Your task to perform on an android device: Open Yahoo.com Image 0: 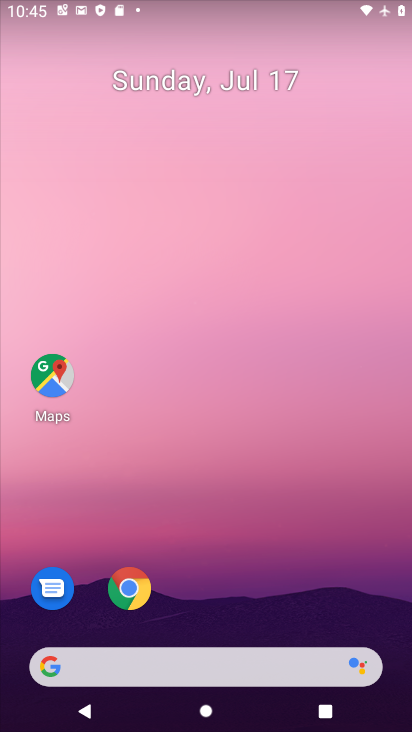
Step 0: press home button
Your task to perform on an android device: Open Yahoo.com Image 1: 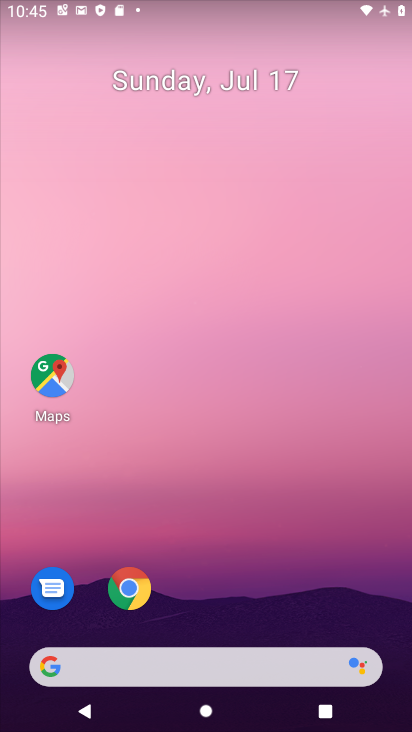
Step 1: drag from (264, 93) to (321, 696)
Your task to perform on an android device: Open Yahoo.com Image 2: 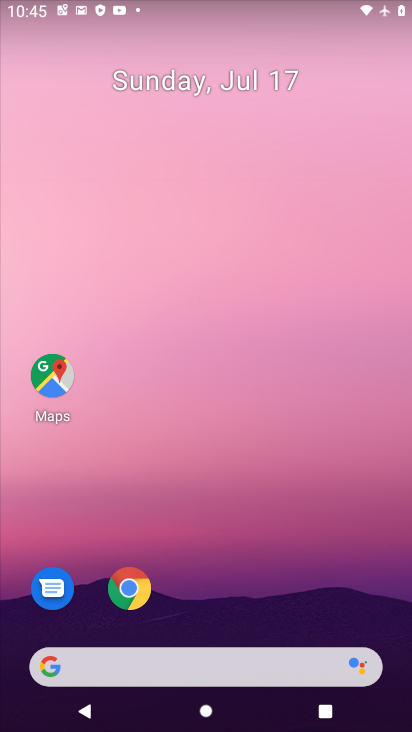
Step 2: drag from (380, 5) to (319, 7)
Your task to perform on an android device: Open Yahoo.com Image 3: 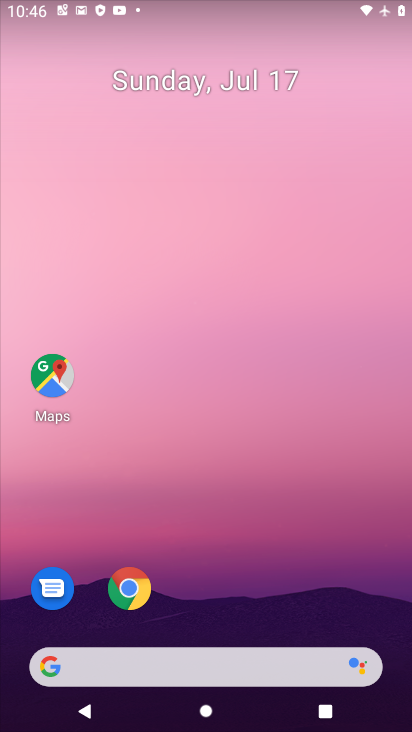
Step 3: drag from (307, 582) to (295, 249)
Your task to perform on an android device: Open Yahoo.com Image 4: 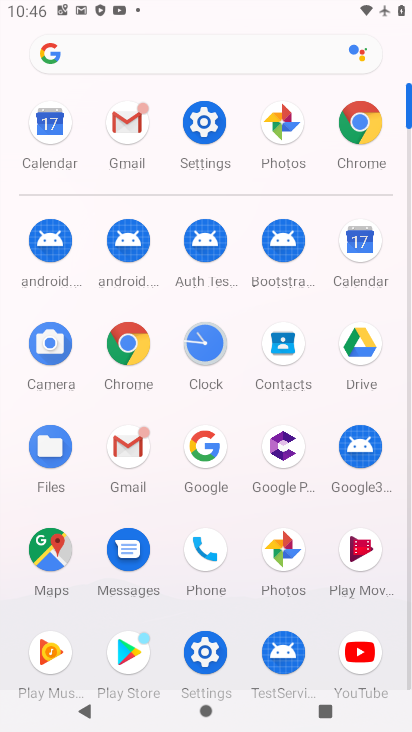
Step 4: click (134, 347)
Your task to perform on an android device: Open Yahoo.com Image 5: 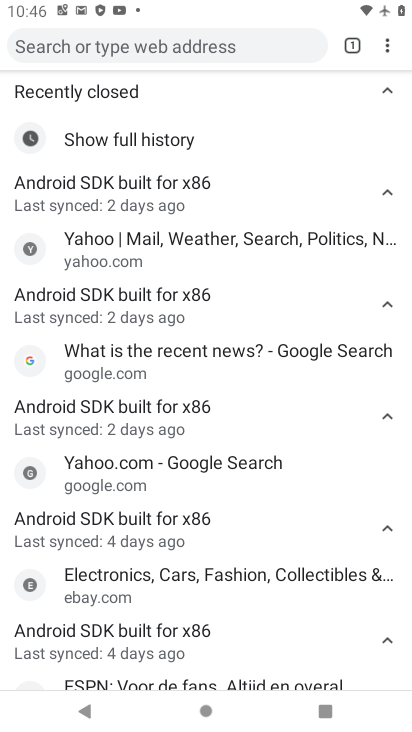
Step 5: click (177, 59)
Your task to perform on an android device: Open Yahoo.com Image 6: 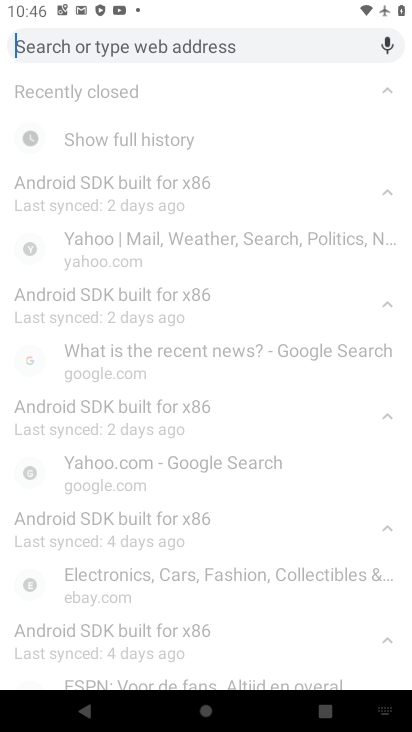
Step 6: type "Yahoo.com"
Your task to perform on an android device: Open Yahoo.com Image 7: 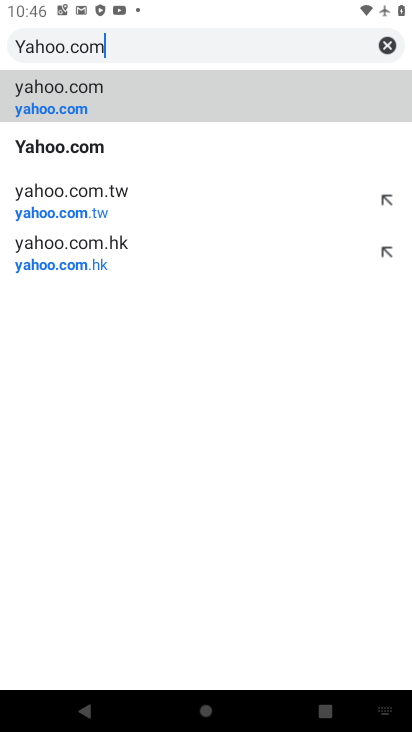
Step 7: type ""
Your task to perform on an android device: Open Yahoo.com Image 8: 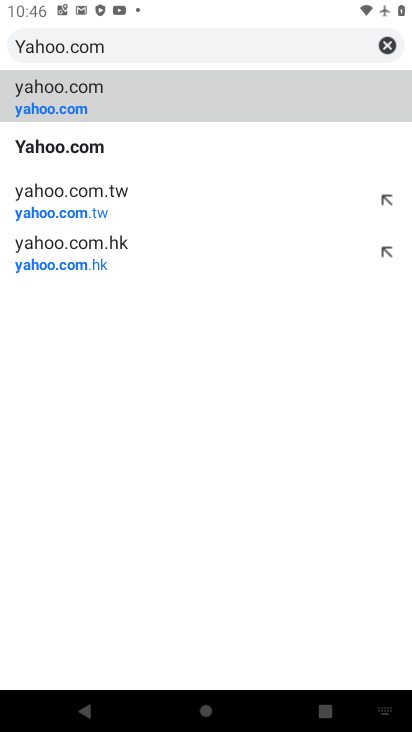
Step 8: click (92, 95)
Your task to perform on an android device: Open Yahoo.com Image 9: 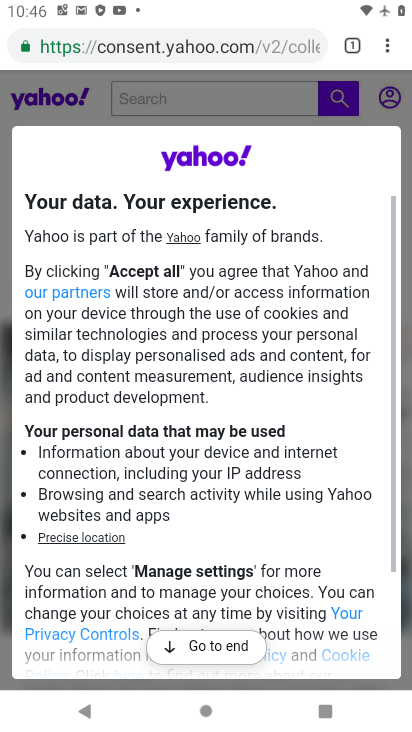
Step 9: task complete